Your task to perform on an android device: delete a single message in the gmail app Image 0: 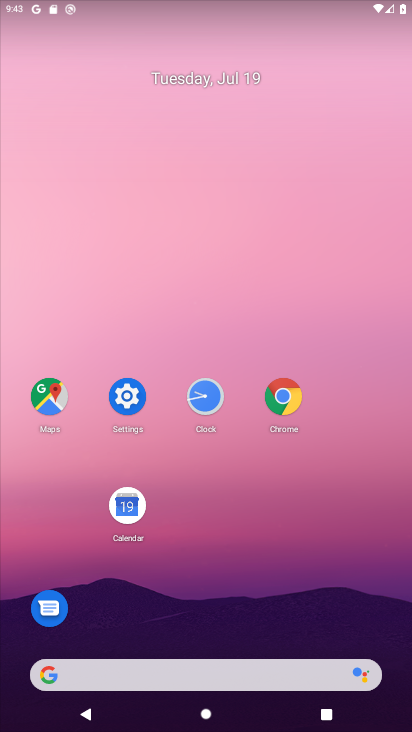
Step 0: drag from (358, 434) to (345, 83)
Your task to perform on an android device: delete a single message in the gmail app Image 1: 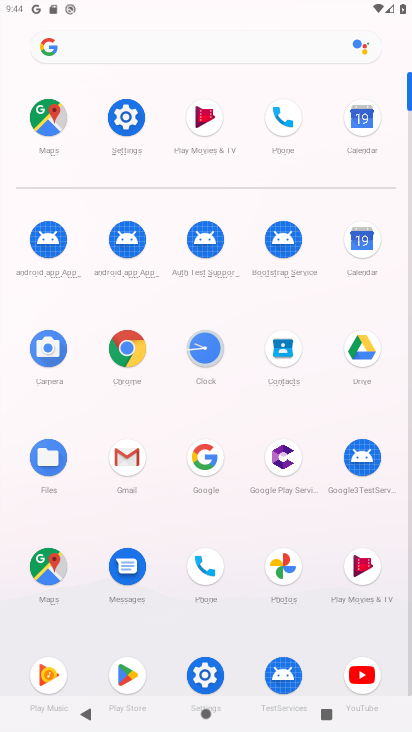
Step 1: click (129, 458)
Your task to perform on an android device: delete a single message in the gmail app Image 2: 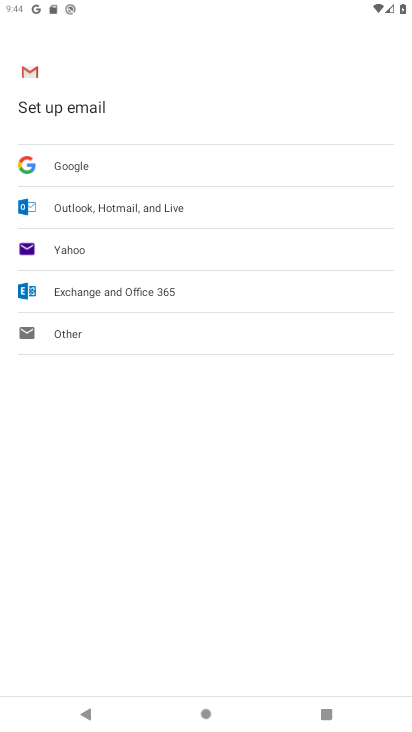
Step 2: press back button
Your task to perform on an android device: delete a single message in the gmail app Image 3: 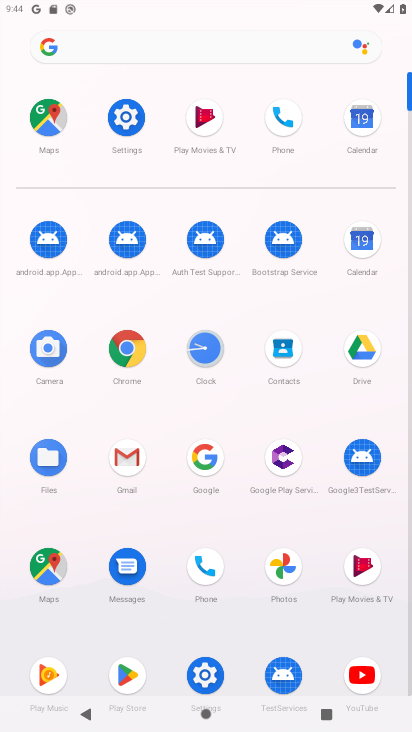
Step 3: click (136, 452)
Your task to perform on an android device: delete a single message in the gmail app Image 4: 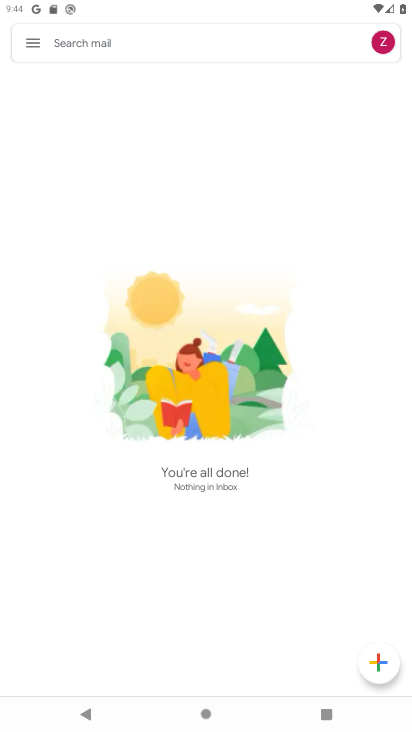
Step 4: task complete